Your task to perform on an android device: turn on the 24-hour format for clock Image 0: 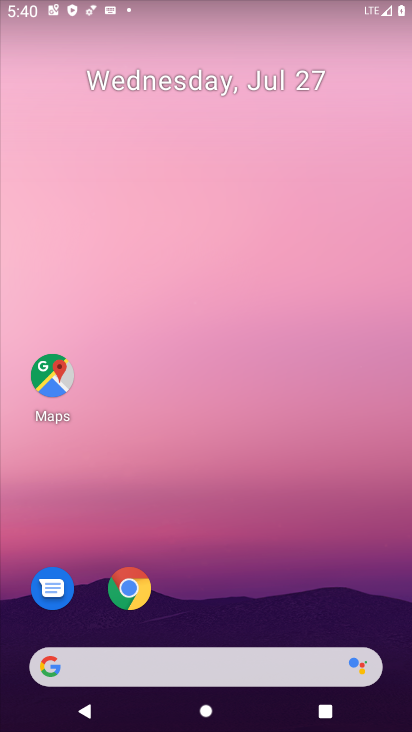
Step 0: drag from (280, 627) to (350, 17)
Your task to perform on an android device: turn on the 24-hour format for clock Image 1: 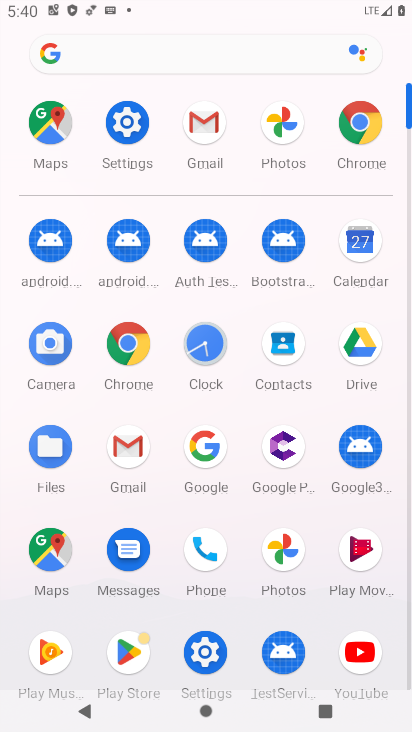
Step 1: click (218, 348)
Your task to perform on an android device: turn on the 24-hour format for clock Image 2: 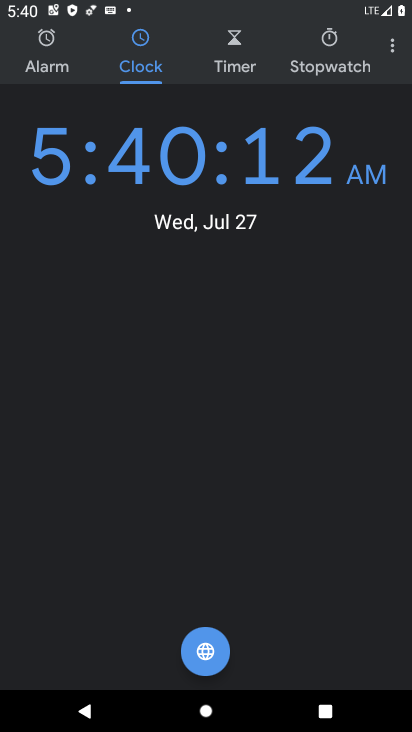
Step 2: click (399, 40)
Your task to perform on an android device: turn on the 24-hour format for clock Image 3: 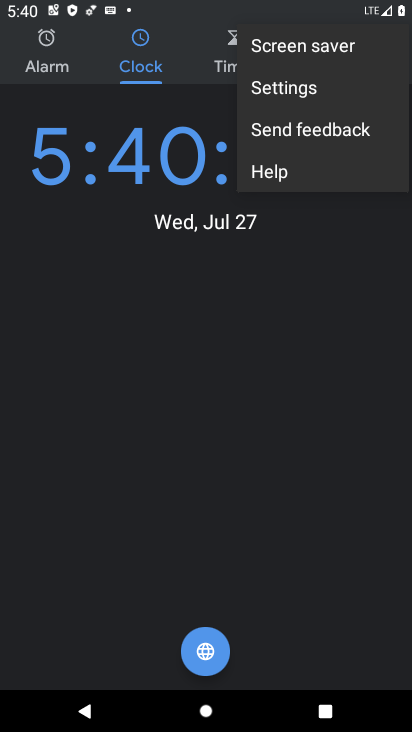
Step 3: click (277, 80)
Your task to perform on an android device: turn on the 24-hour format for clock Image 4: 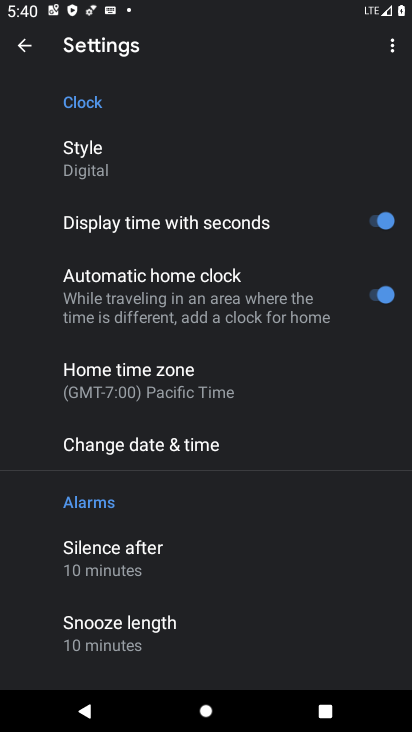
Step 4: click (172, 439)
Your task to perform on an android device: turn on the 24-hour format for clock Image 5: 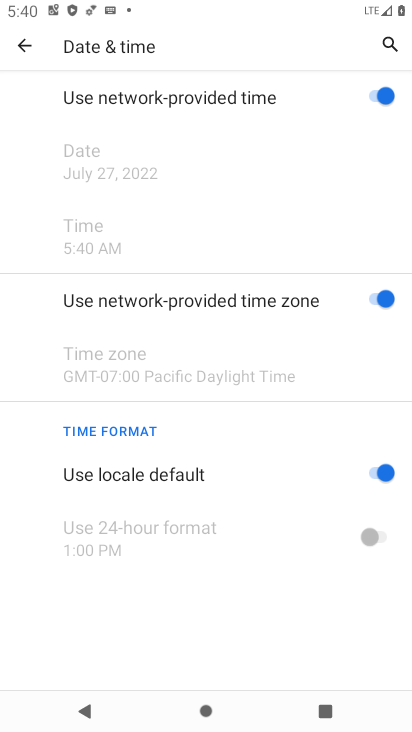
Step 5: click (382, 464)
Your task to perform on an android device: turn on the 24-hour format for clock Image 6: 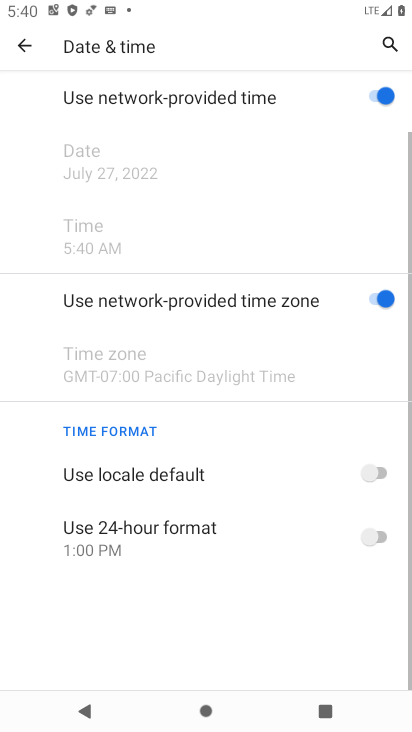
Step 6: click (384, 538)
Your task to perform on an android device: turn on the 24-hour format for clock Image 7: 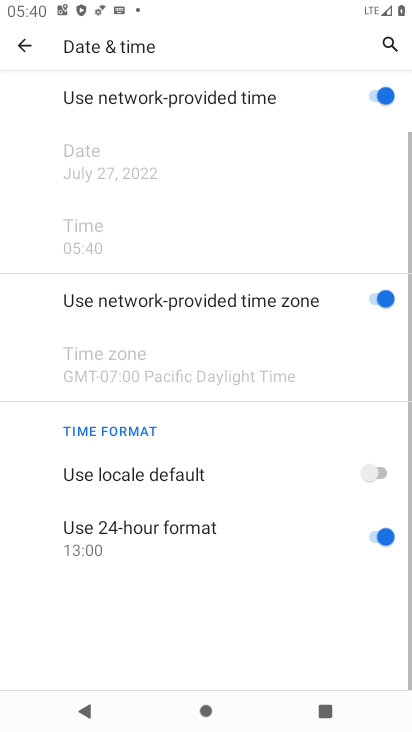
Step 7: task complete